Your task to perform on an android device: Search for vegetarian restaurants on Maps Image 0: 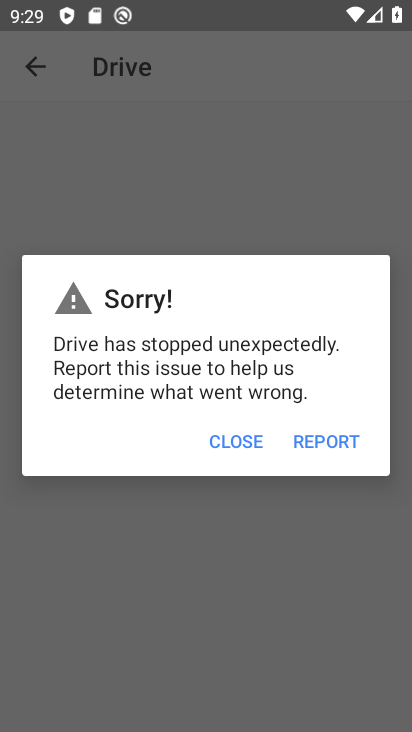
Step 0: press home button
Your task to perform on an android device: Search for vegetarian restaurants on Maps Image 1: 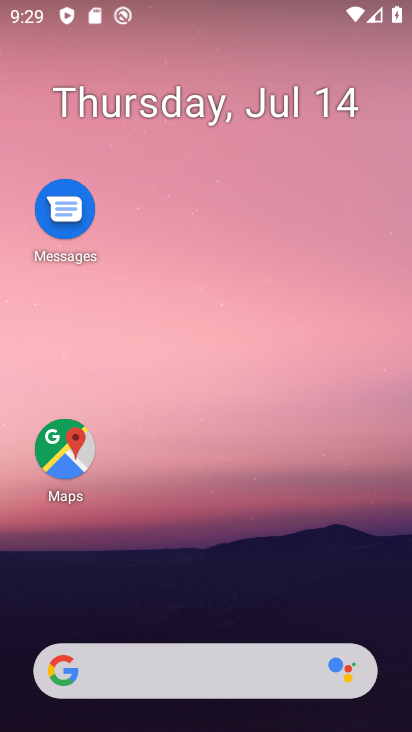
Step 1: drag from (231, 634) to (17, 58)
Your task to perform on an android device: Search for vegetarian restaurants on Maps Image 2: 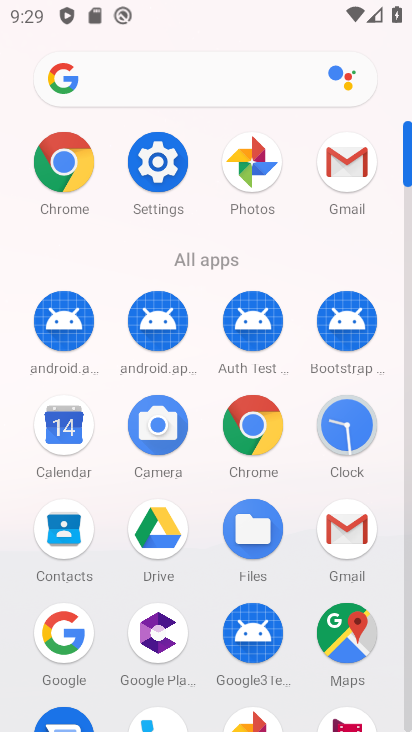
Step 2: click (350, 657)
Your task to perform on an android device: Search for vegetarian restaurants on Maps Image 3: 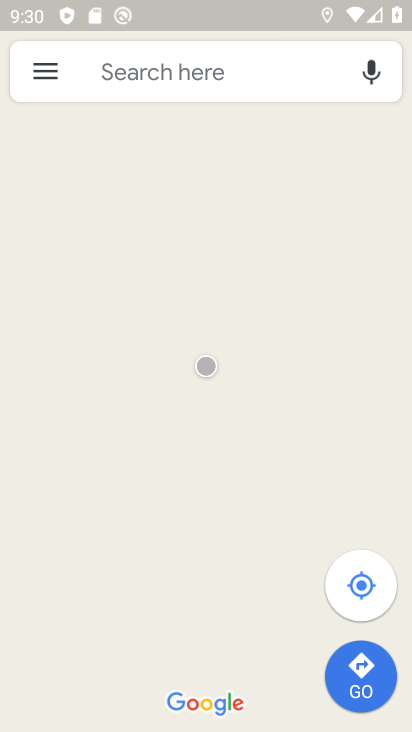
Step 3: click (194, 71)
Your task to perform on an android device: Search for vegetarian restaurants on Maps Image 4: 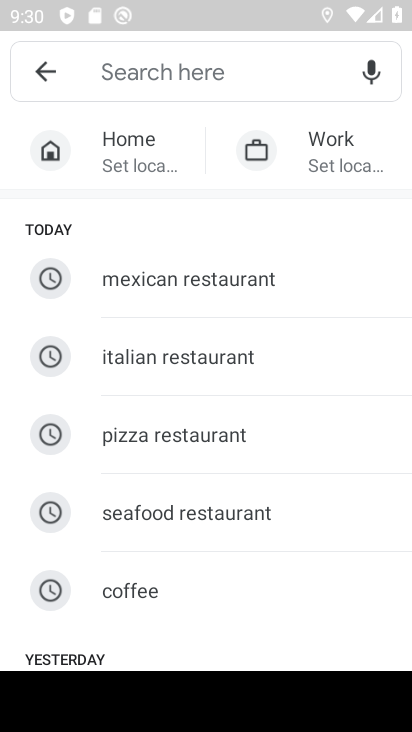
Step 4: drag from (182, 485) to (39, 30)
Your task to perform on an android device: Search for vegetarian restaurants on Maps Image 5: 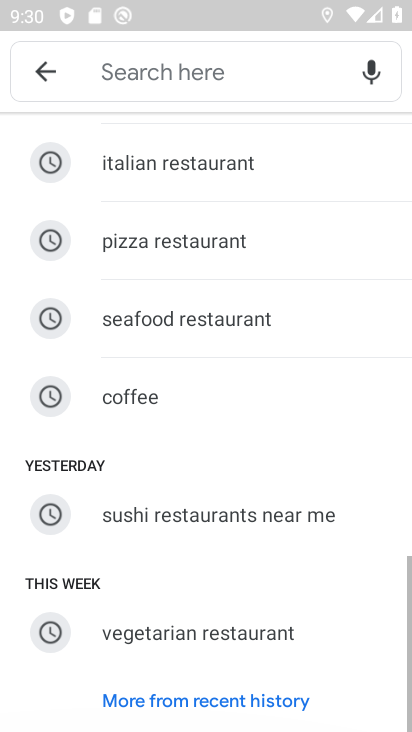
Step 5: click (145, 627)
Your task to perform on an android device: Search for vegetarian restaurants on Maps Image 6: 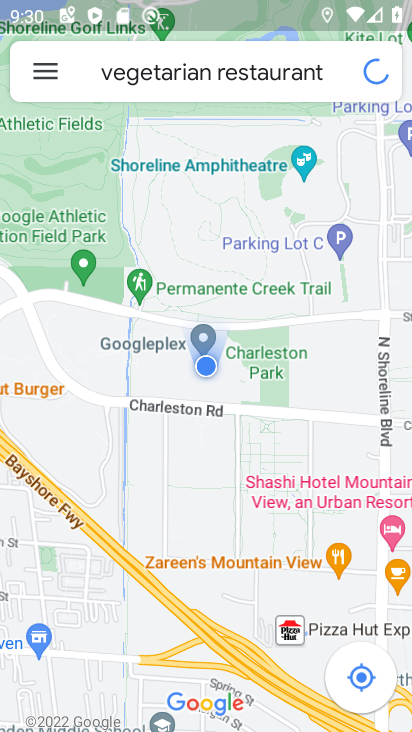
Step 6: task complete